Your task to perform on an android device: open a bookmark in the chrome app Image 0: 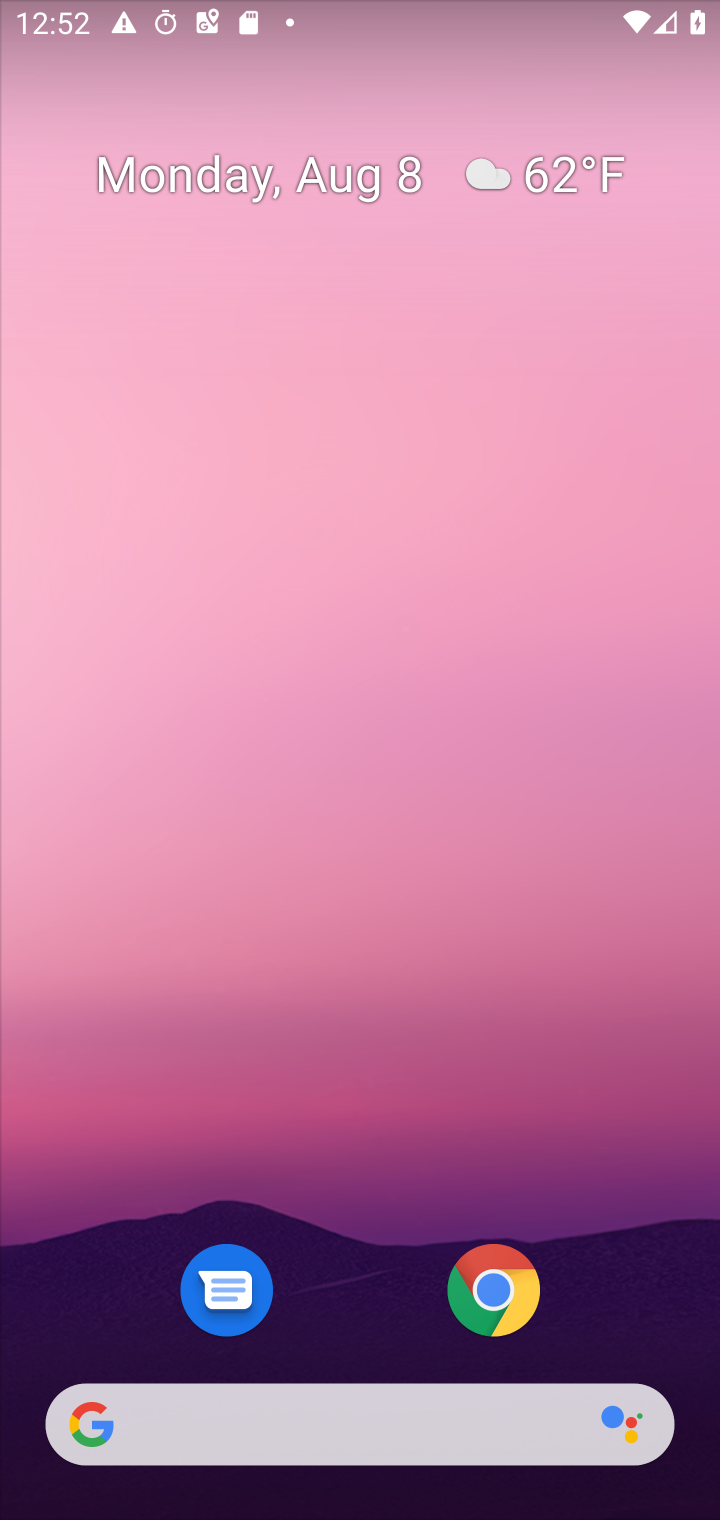
Step 0: click (502, 1314)
Your task to perform on an android device: open a bookmark in the chrome app Image 1: 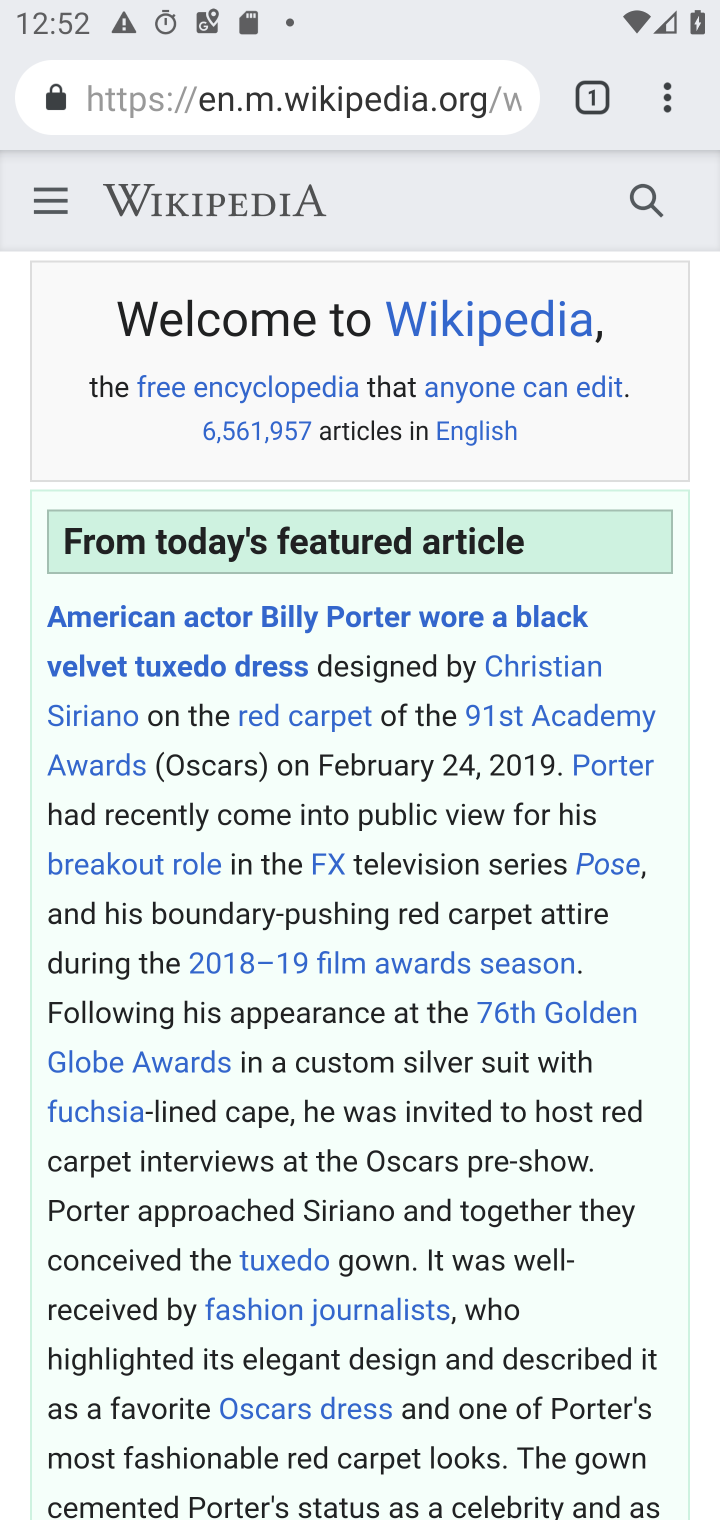
Step 1: click (655, 97)
Your task to perform on an android device: open a bookmark in the chrome app Image 2: 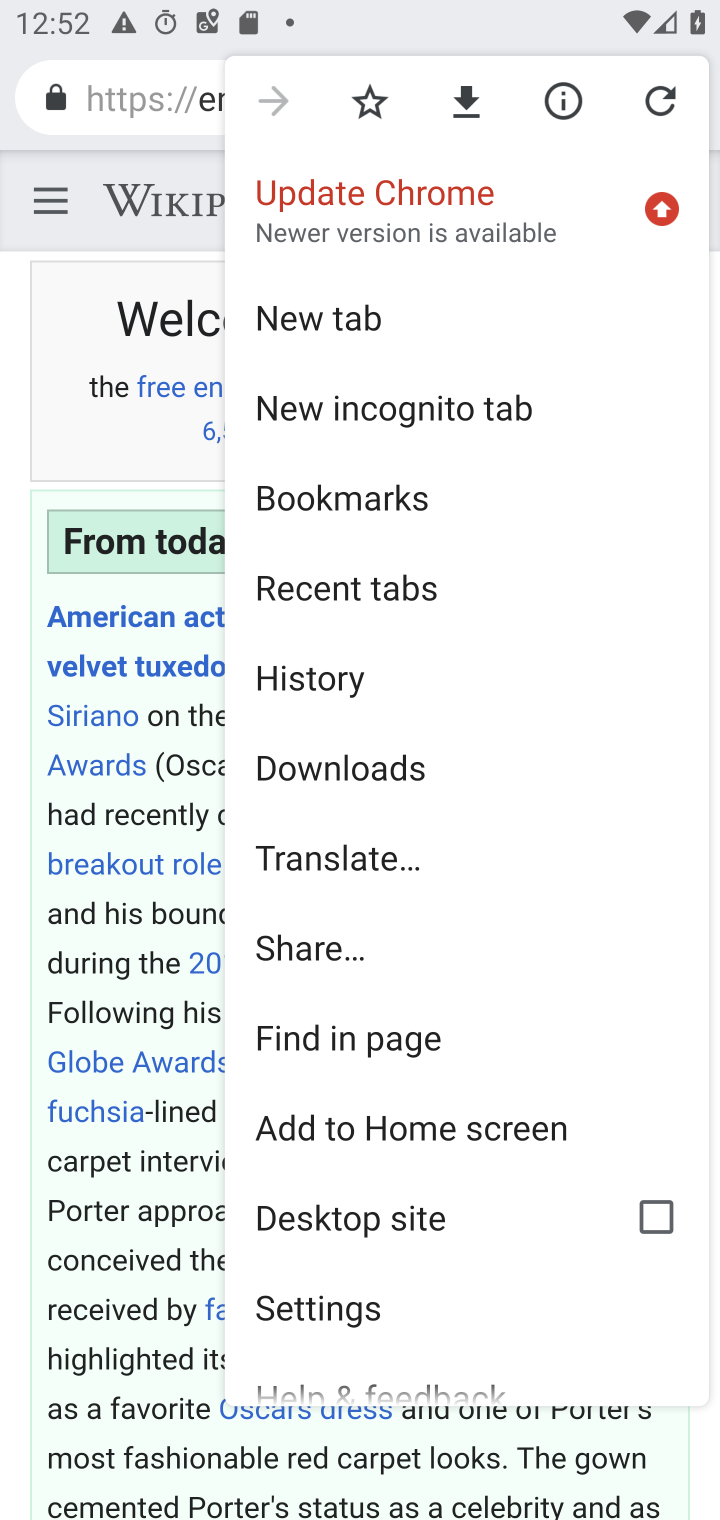
Step 2: click (378, 496)
Your task to perform on an android device: open a bookmark in the chrome app Image 3: 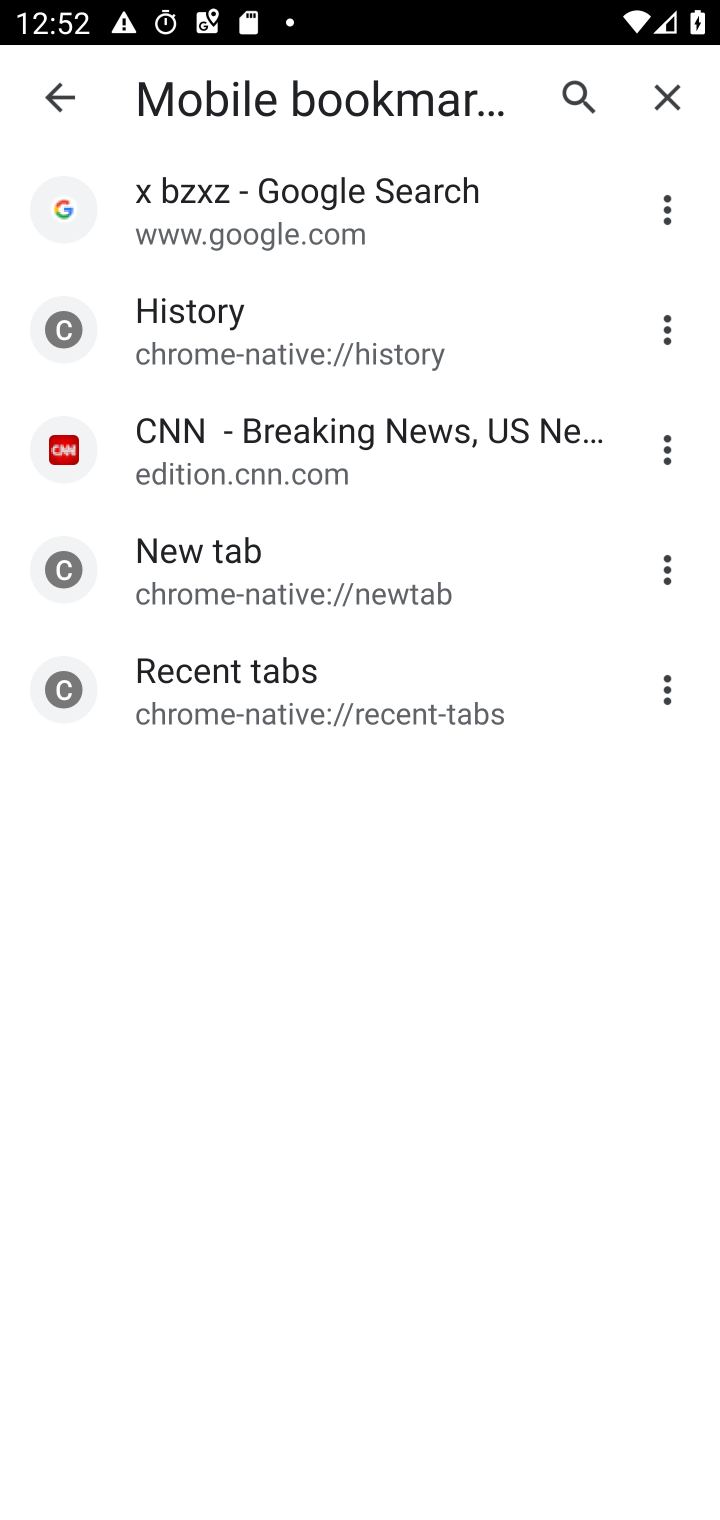
Step 3: click (303, 250)
Your task to perform on an android device: open a bookmark in the chrome app Image 4: 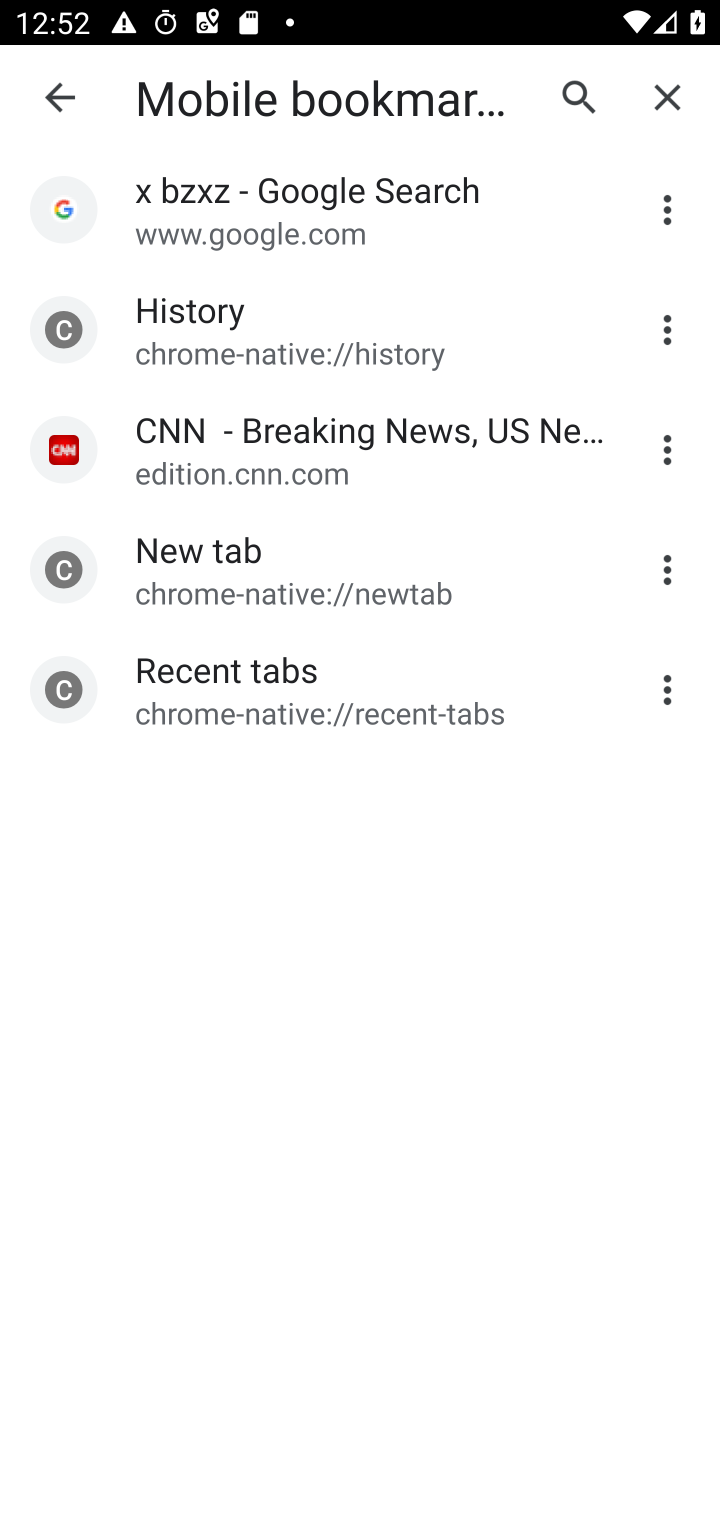
Step 4: click (294, 215)
Your task to perform on an android device: open a bookmark in the chrome app Image 5: 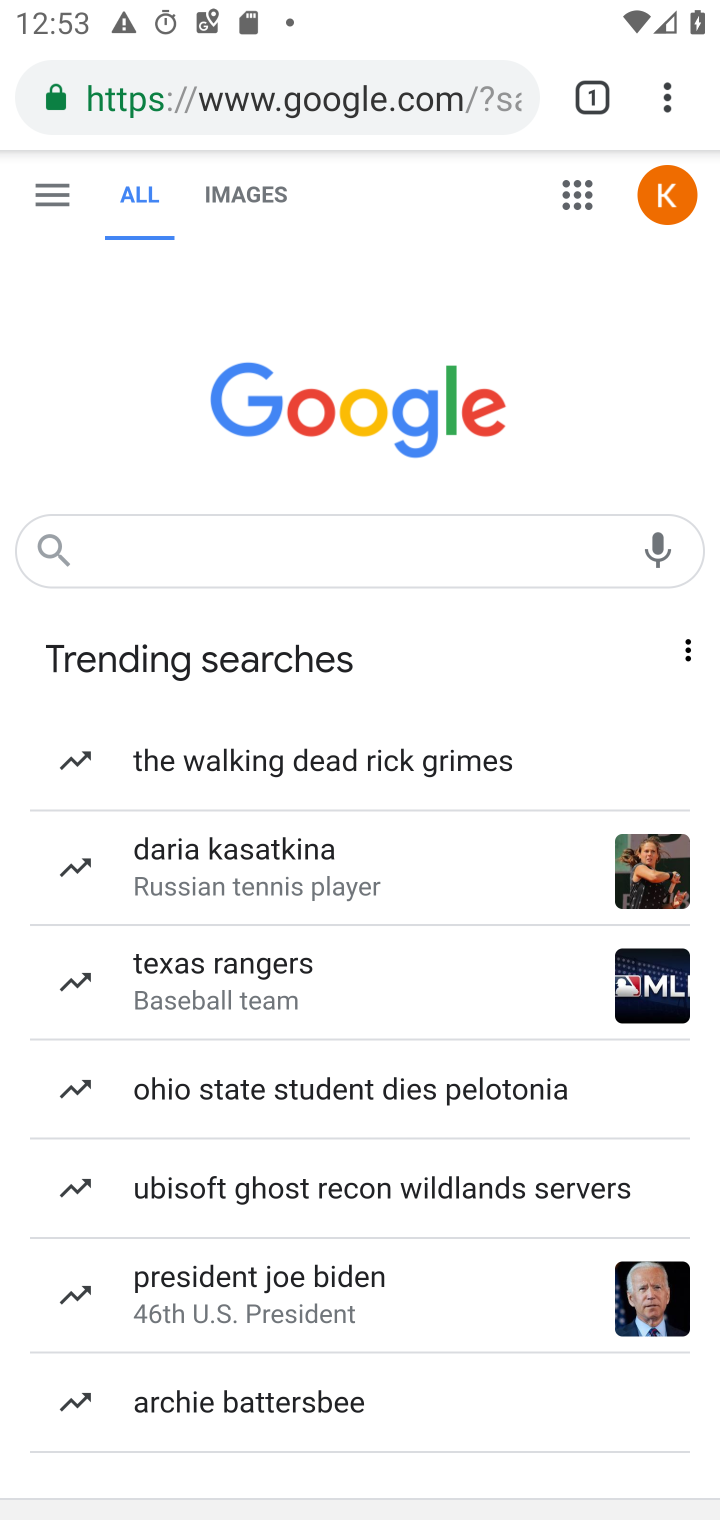
Step 5: task complete